Your task to perform on an android device: turn off javascript in the chrome app Image 0: 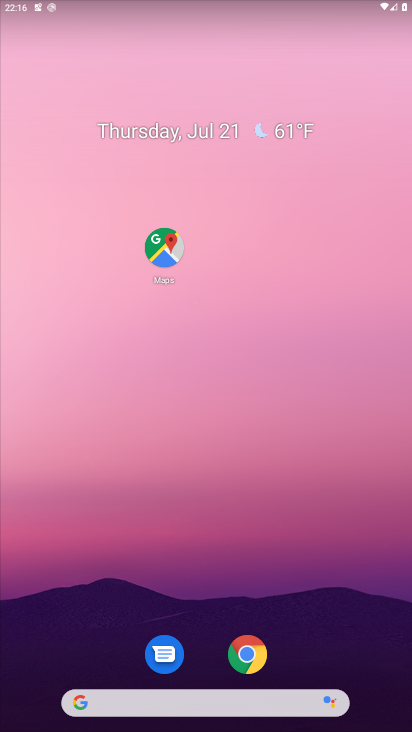
Step 0: click (239, 661)
Your task to perform on an android device: turn off javascript in the chrome app Image 1: 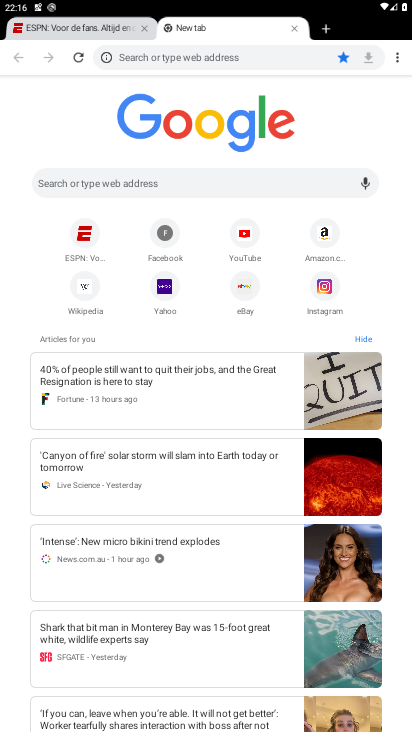
Step 1: click (393, 51)
Your task to perform on an android device: turn off javascript in the chrome app Image 2: 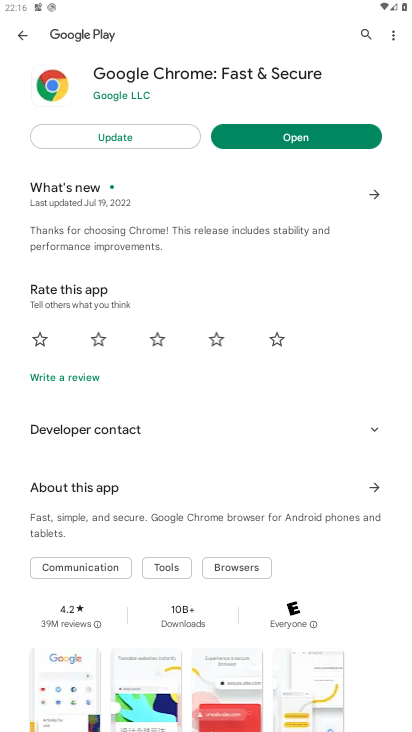
Step 2: click (277, 142)
Your task to perform on an android device: turn off javascript in the chrome app Image 3: 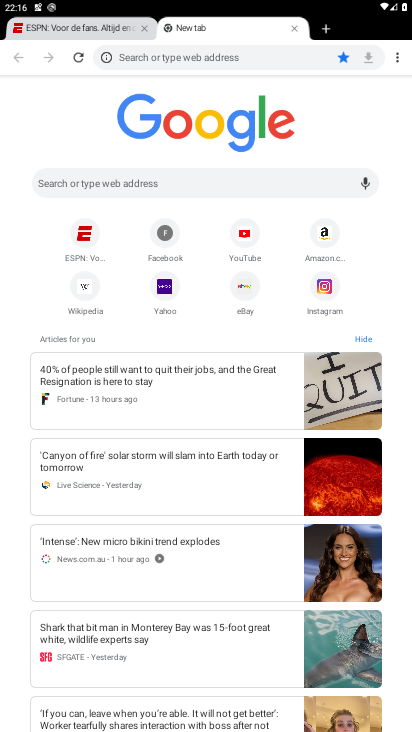
Step 3: click (395, 54)
Your task to perform on an android device: turn off javascript in the chrome app Image 4: 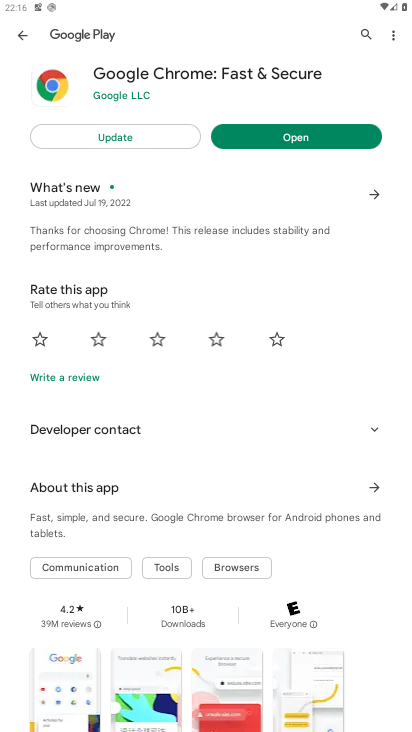
Step 4: task complete